Your task to perform on an android device: install app "Expedia: Hotels, Flights & Car" Image 0: 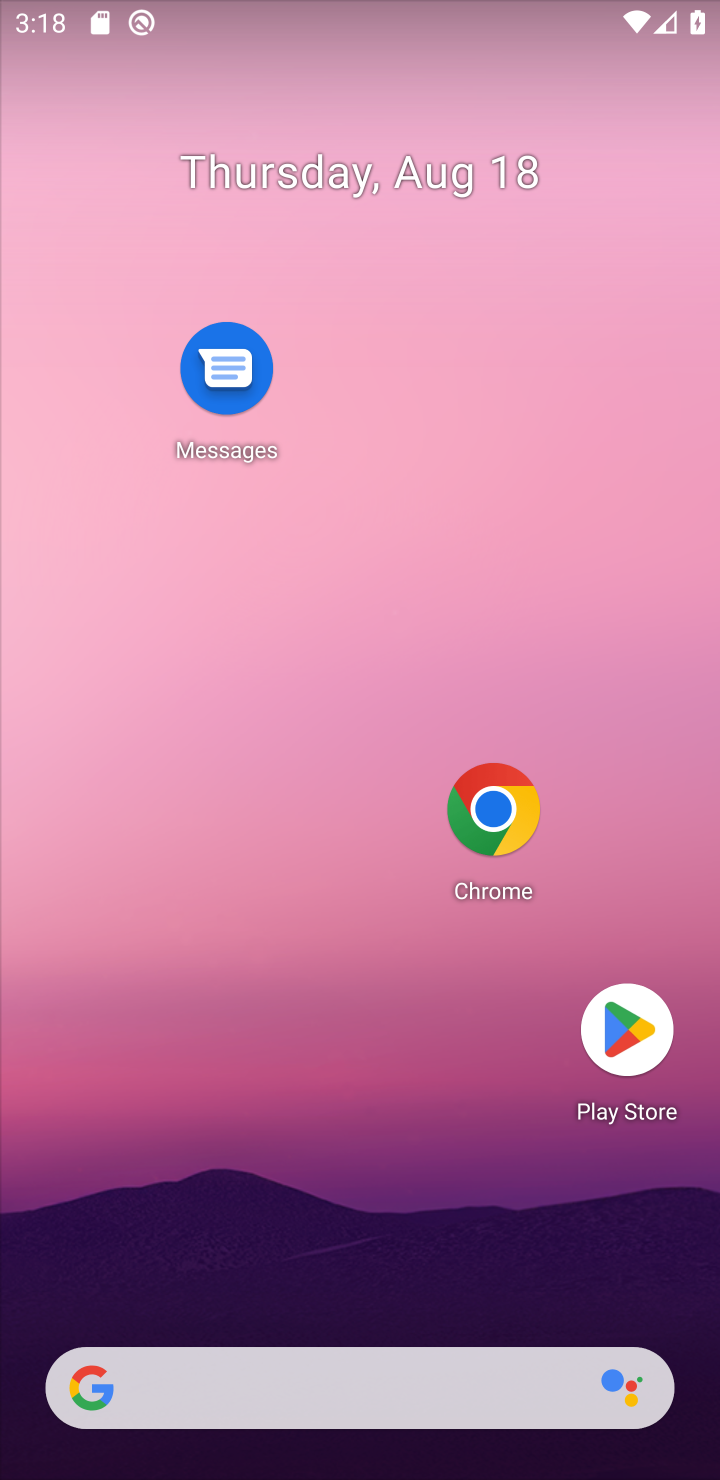
Step 0: click (642, 1011)
Your task to perform on an android device: install app "Expedia: Hotels, Flights & Car" Image 1: 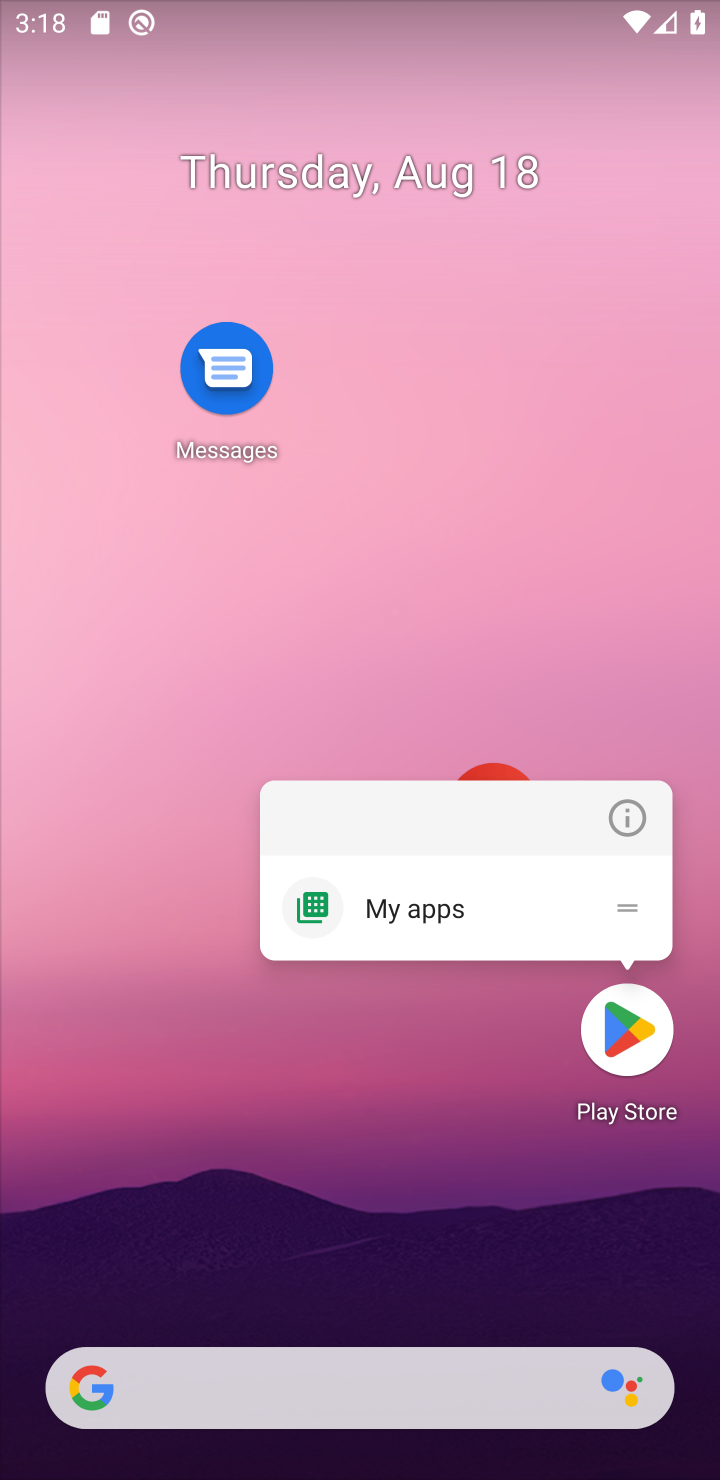
Step 1: click (619, 1027)
Your task to perform on an android device: install app "Expedia: Hotels, Flights & Car" Image 2: 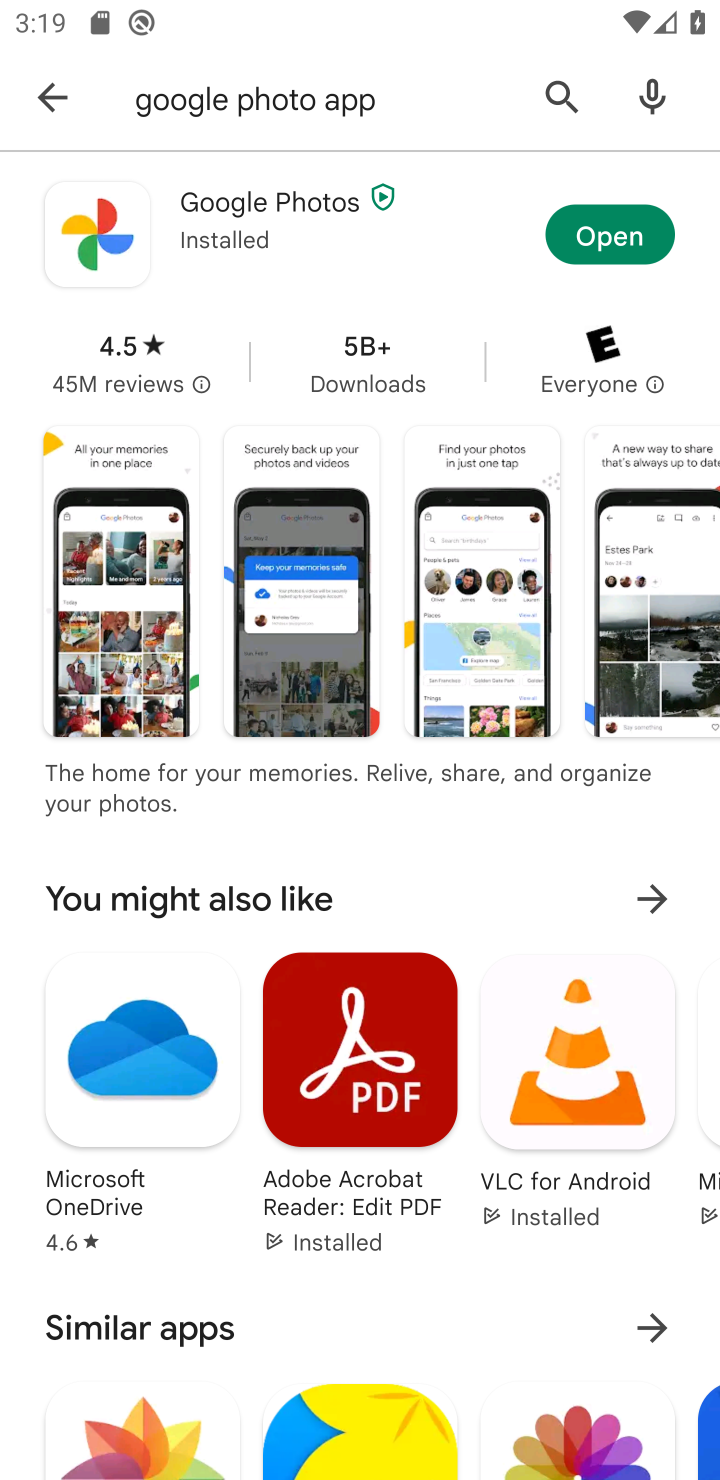
Step 2: click (557, 87)
Your task to perform on an android device: install app "Expedia: Hotels, Flights & Car" Image 3: 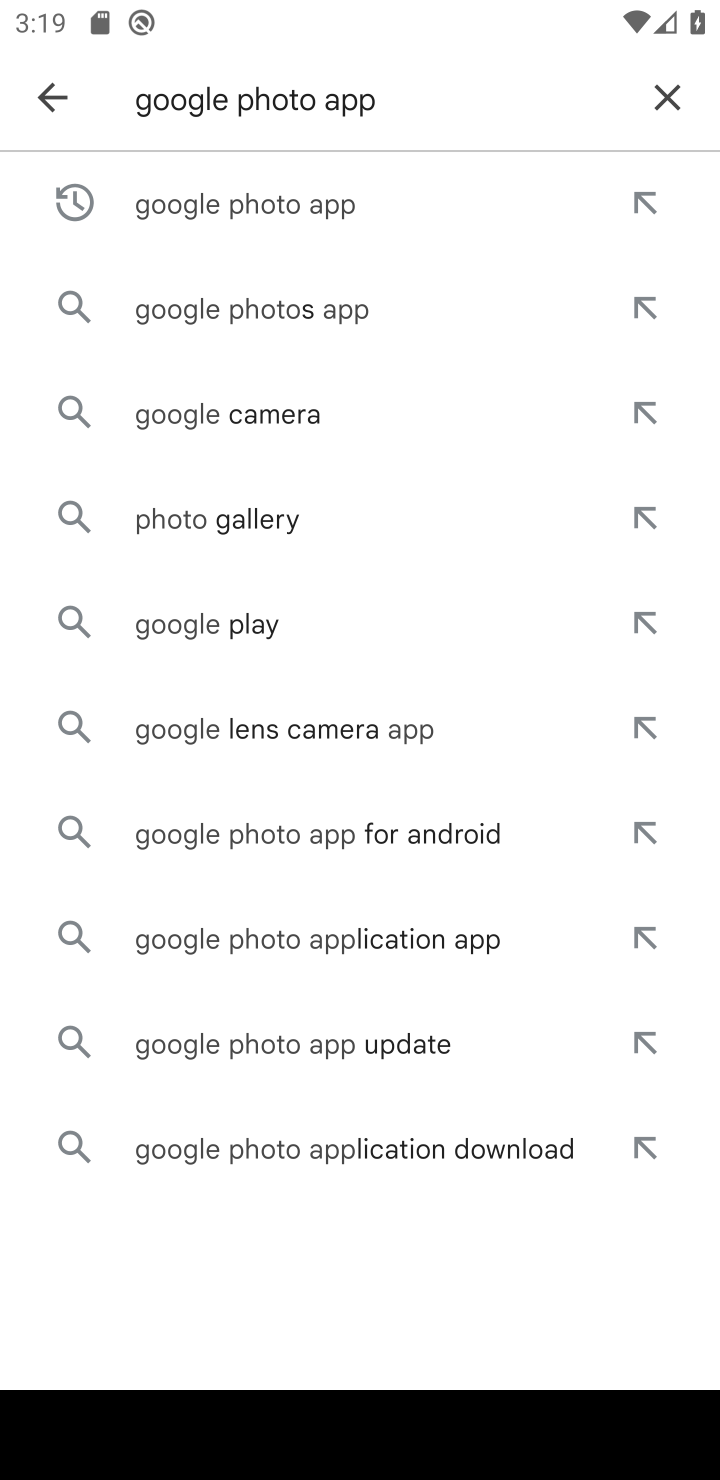
Step 3: click (674, 88)
Your task to perform on an android device: install app "Expedia: Hotels, Flights & Car" Image 4: 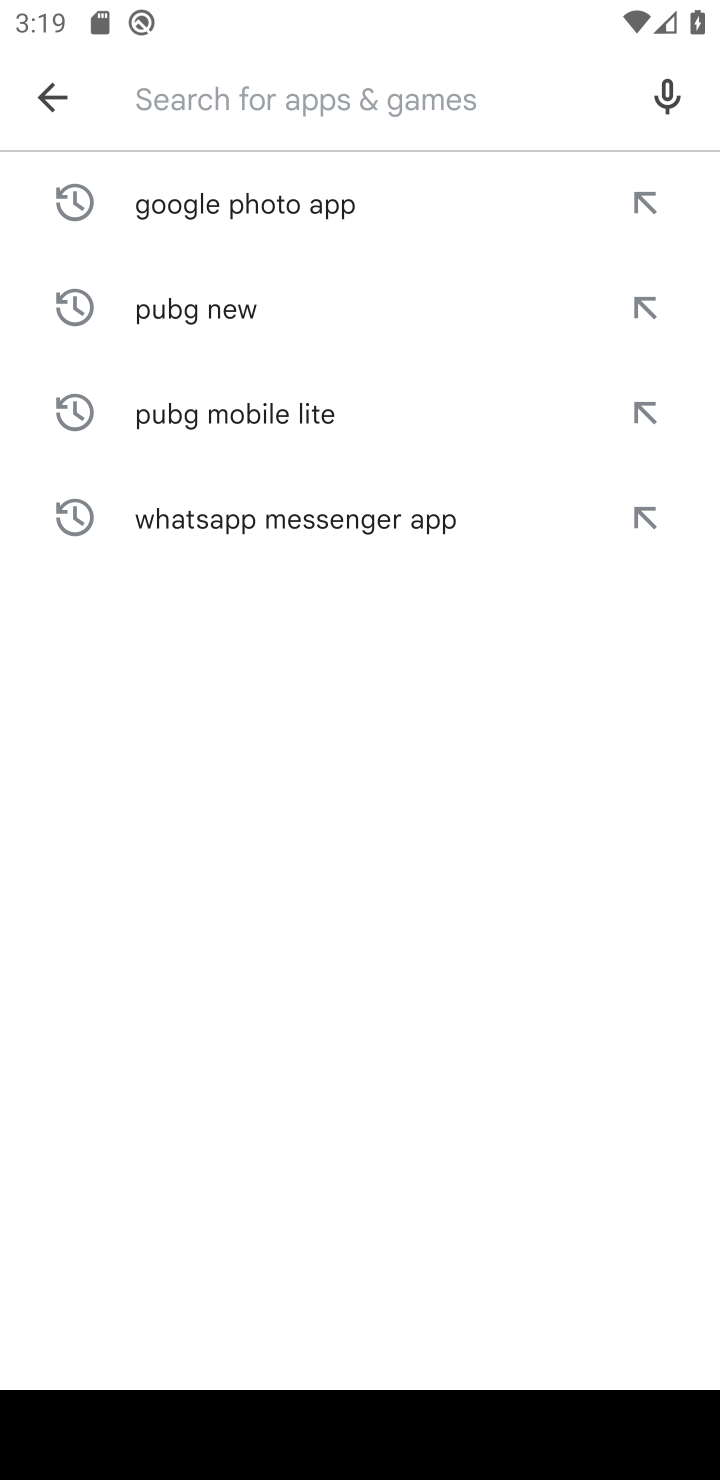
Step 4: click (369, 78)
Your task to perform on an android device: install app "Expedia: Hotels, Flights & Car" Image 5: 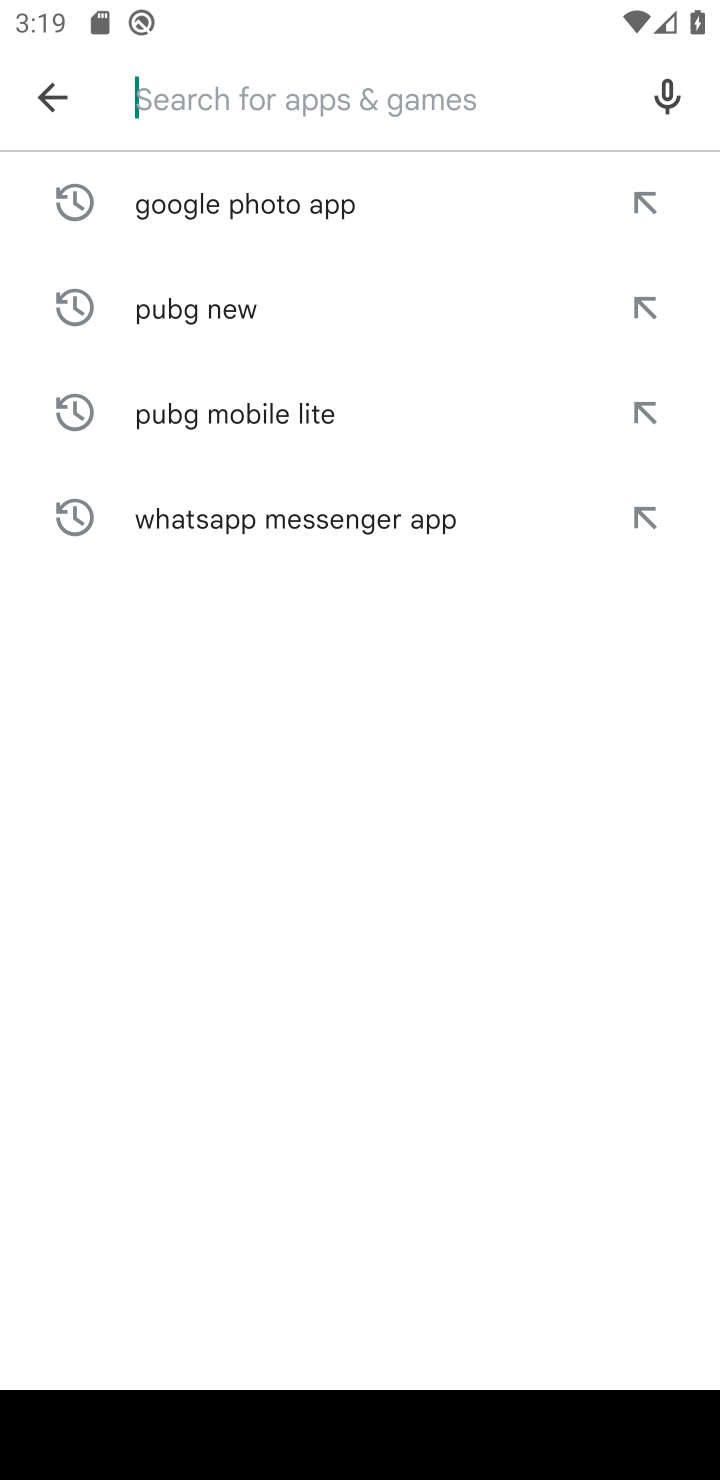
Step 5: type "Expedia: Hotels, Flights & Car "
Your task to perform on an android device: install app "Expedia: Hotels, Flights & Car" Image 6: 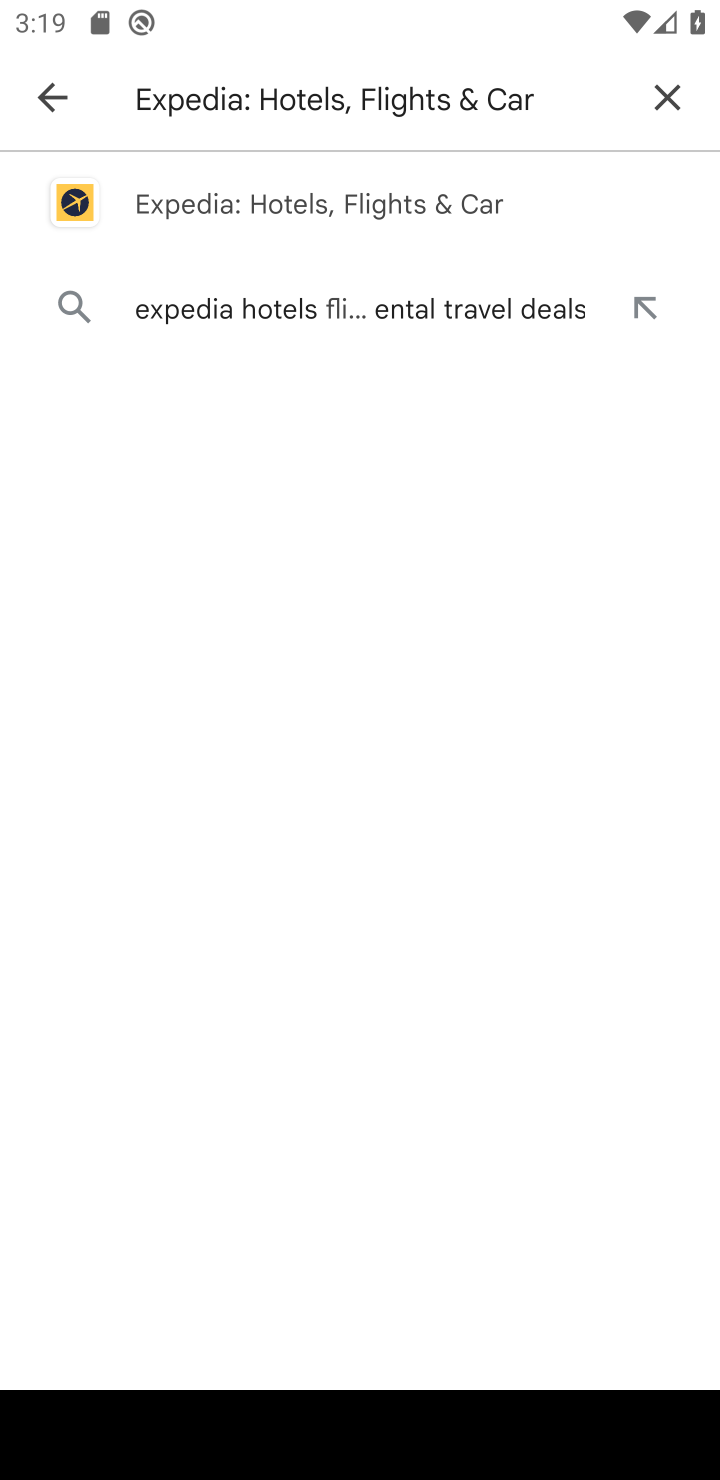
Step 6: click (419, 214)
Your task to perform on an android device: install app "Expedia: Hotels, Flights & Car" Image 7: 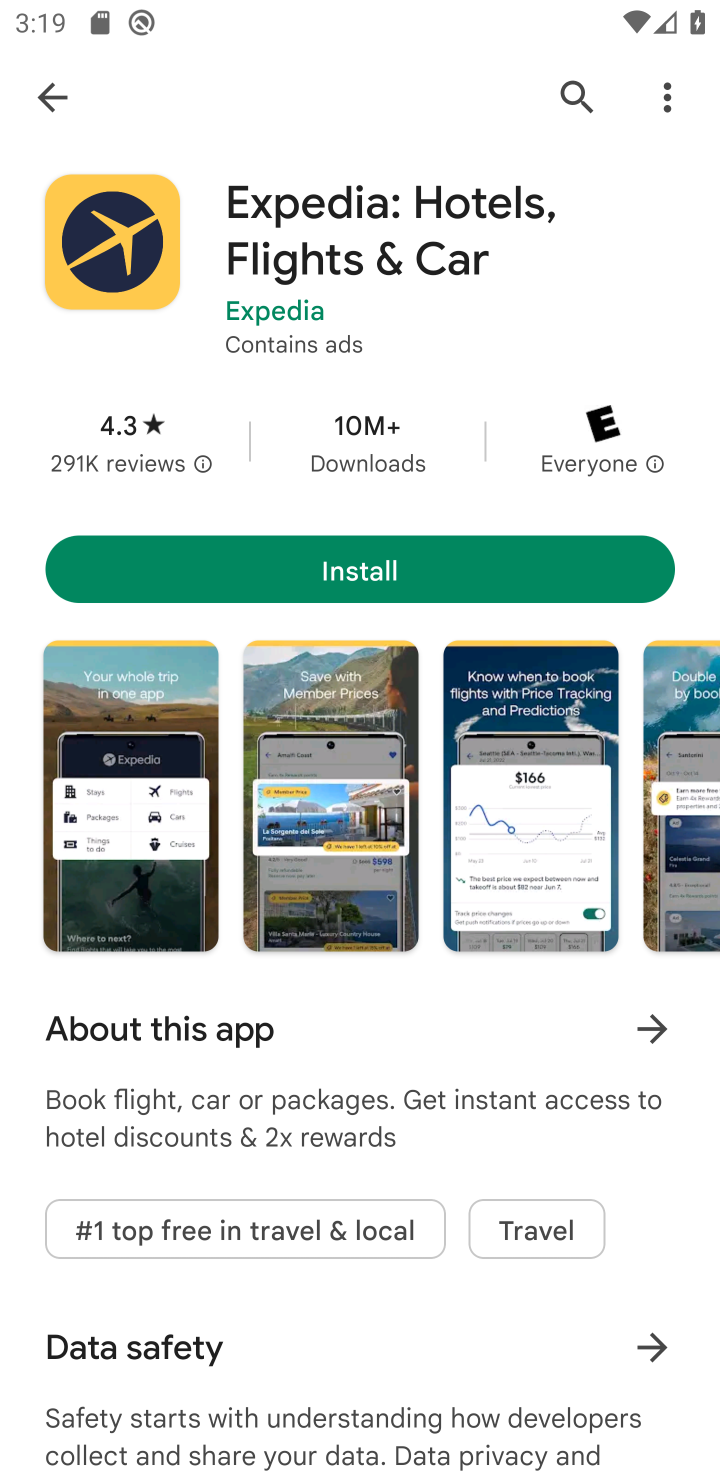
Step 7: click (428, 578)
Your task to perform on an android device: install app "Expedia: Hotels, Flights & Car" Image 8: 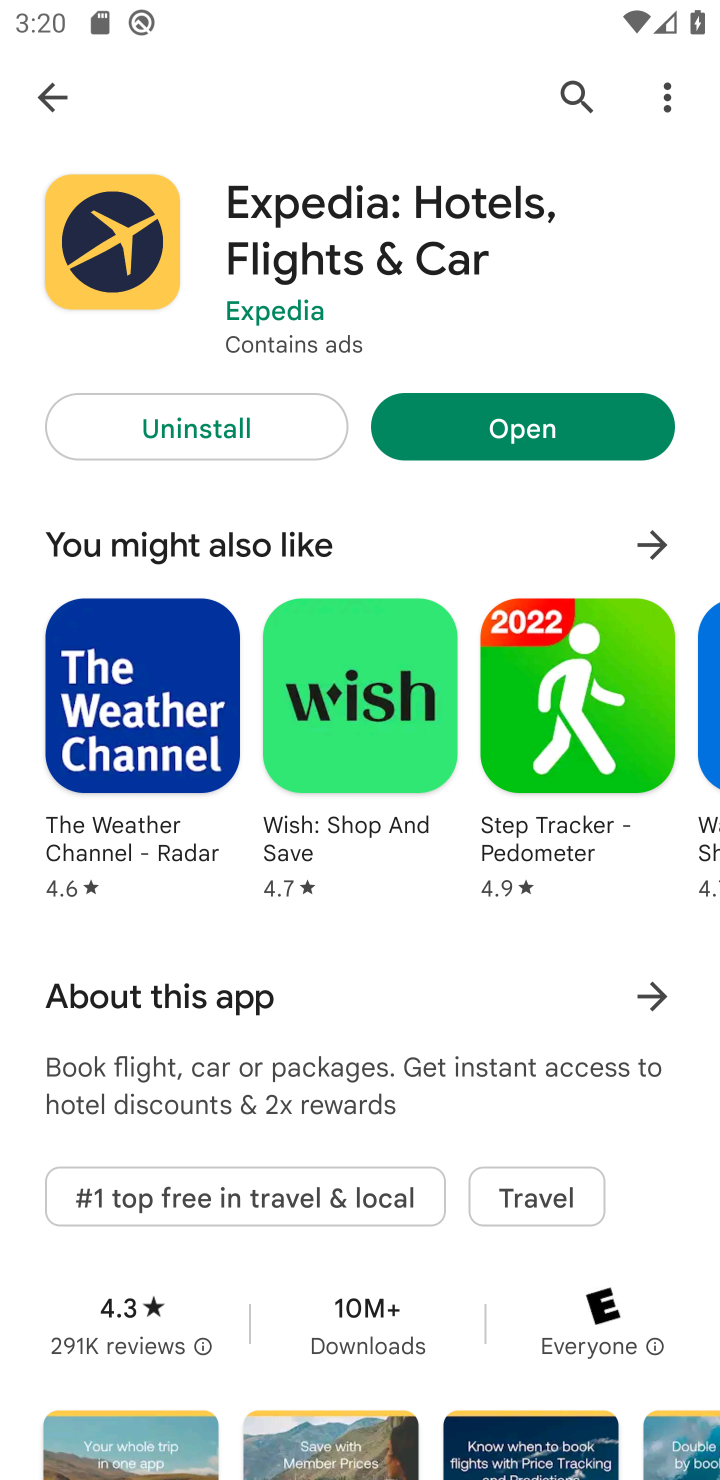
Step 8: click (483, 418)
Your task to perform on an android device: install app "Expedia: Hotels, Flights & Car" Image 9: 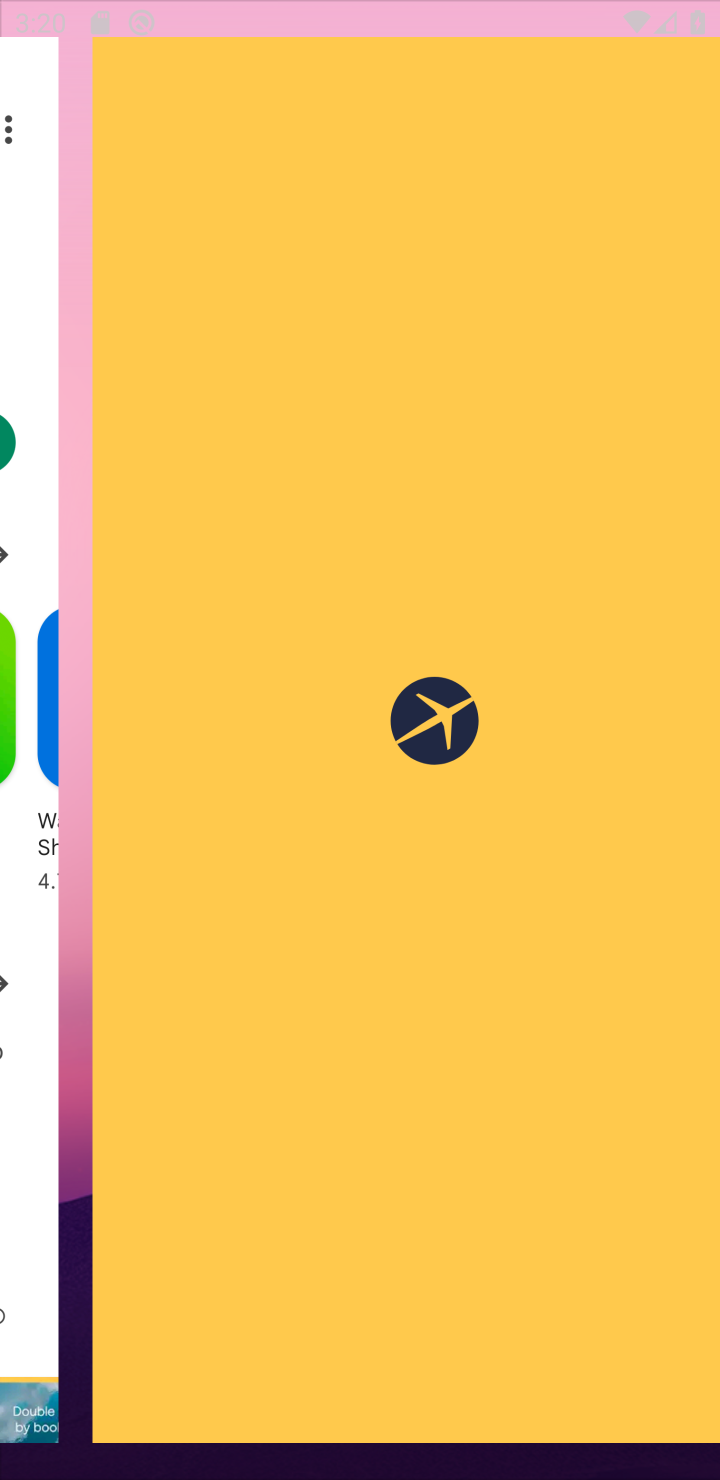
Step 9: task complete